Your task to perform on an android device: Open the stopwatch Image 0: 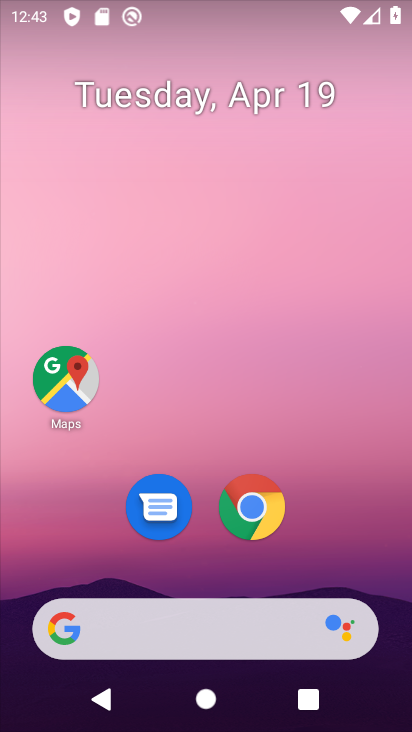
Step 0: drag from (221, 562) to (188, 31)
Your task to perform on an android device: Open the stopwatch Image 1: 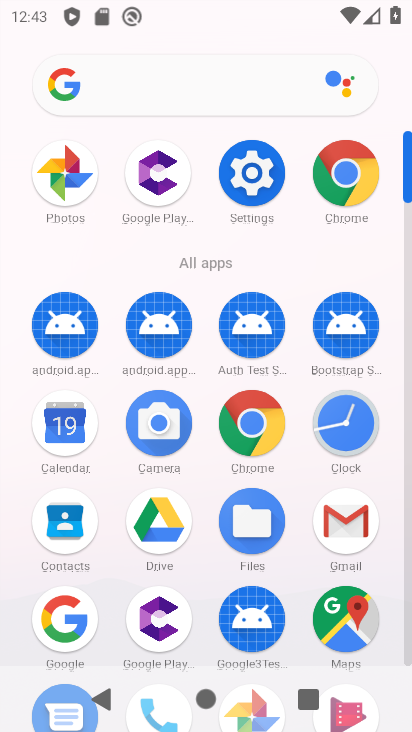
Step 1: click (342, 414)
Your task to perform on an android device: Open the stopwatch Image 2: 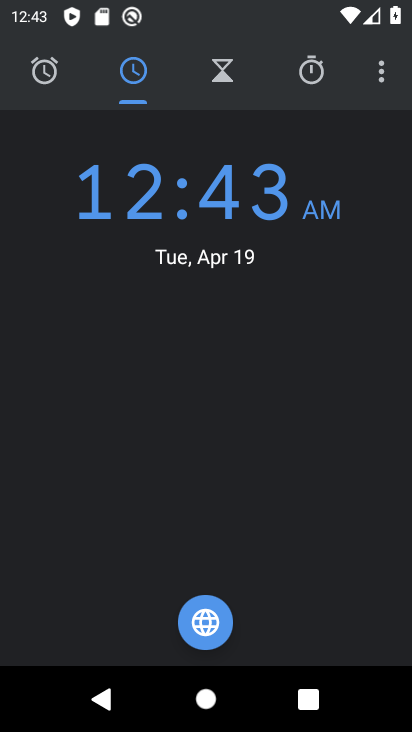
Step 2: click (304, 69)
Your task to perform on an android device: Open the stopwatch Image 3: 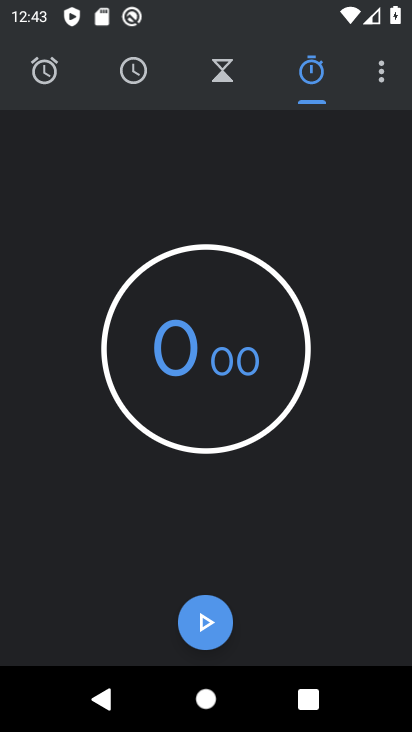
Step 3: click (203, 616)
Your task to perform on an android device: Open the stopwatch Image 4: 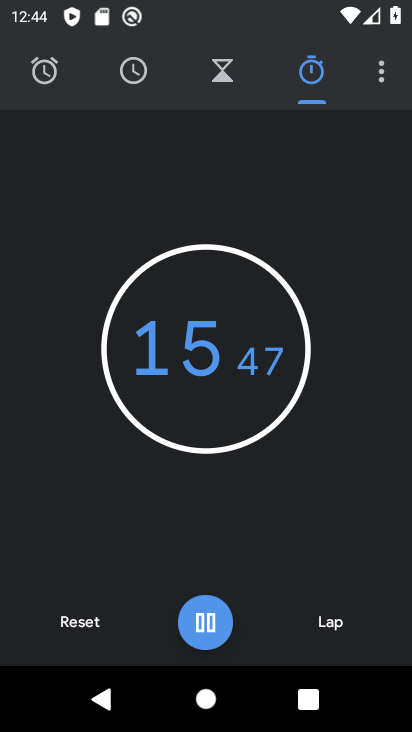
Step 4: click (81, 621)
Your task to perform on an android device: Open the stopwatch Image 5: 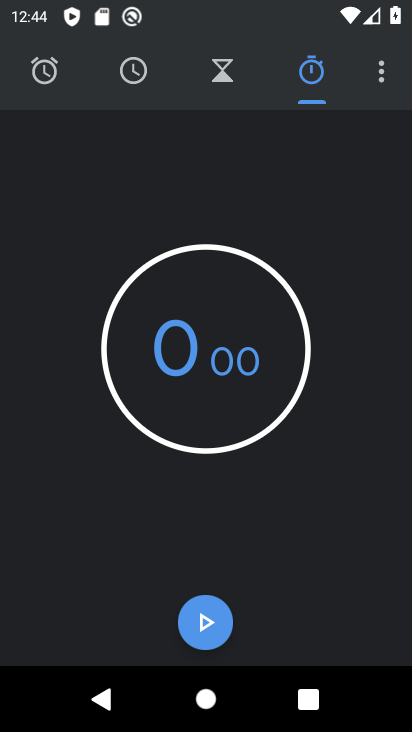
Step 5: task complete